Your task to perform on an android device: Open settings on Google Maps Image 0: 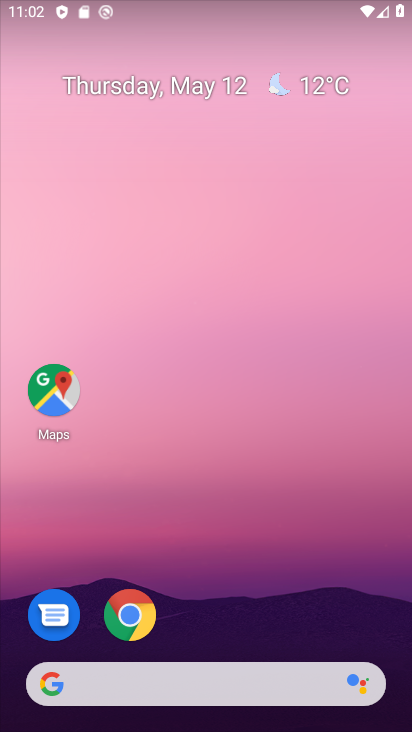
Step 0: click (57, 383)
Your task to perform on an android device: Open settings on Google Maps Image 1: 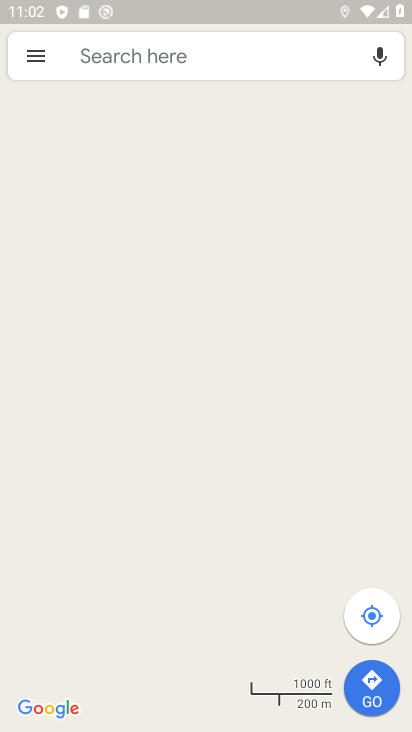
Step 1: click (42, 56)
Your task to perform on an android device: Open settings on Google Maps Image 2: 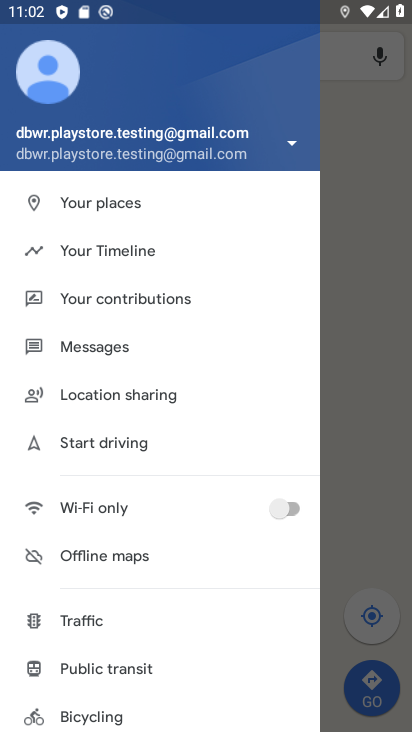
Step 2: drag from (143, 655) to (169, 294)
Your task to perform on an android device: Open settings on Google Maps Image 3: 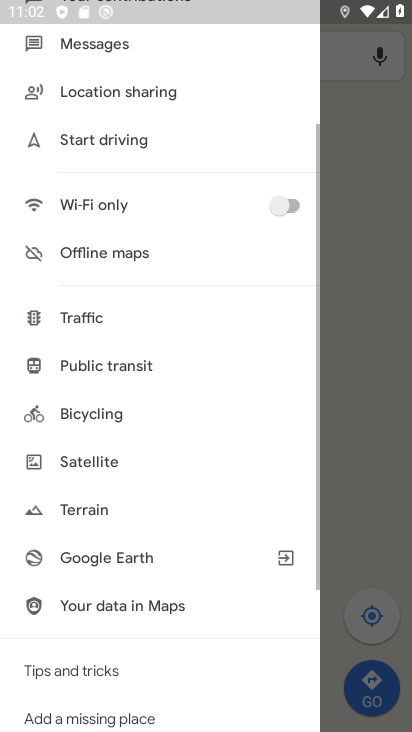
Step 3: drag from (129, 481) to (160, 321)
Your task to perform on an android device: Open settings on Google Maps Image 4: 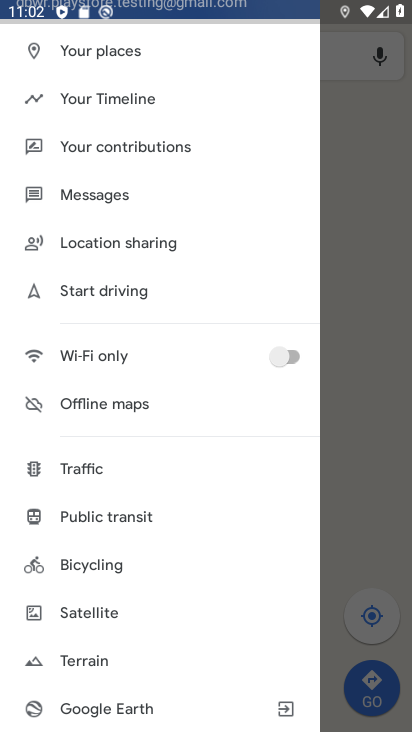
Step 4: drag from (116, 626) to (139, 366)
Your task to perform on an android device: Open settings on Google Maps Image 5: 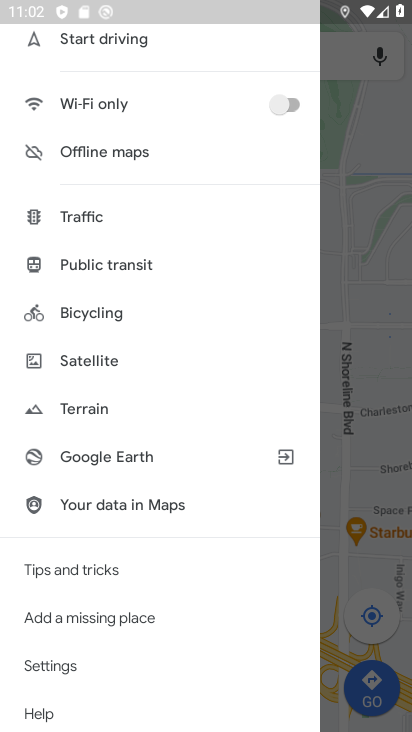
Step 5: click (81, 661)
Your task to perform on an android device: Open settings on Google Maps Image 6: 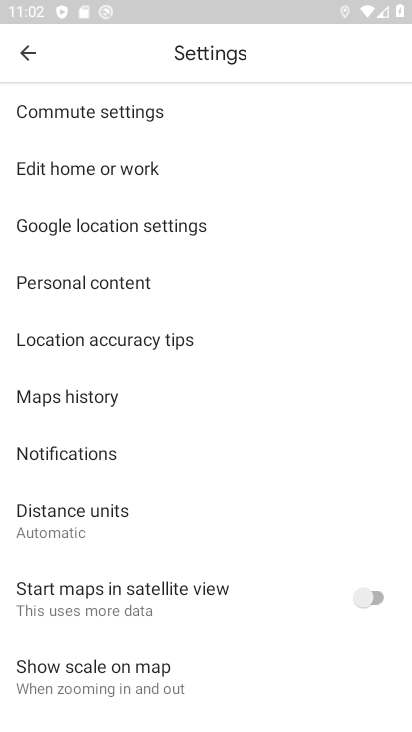
Step 6: task complete